Your task to perform on an android device: Open wifi settings Image 0: 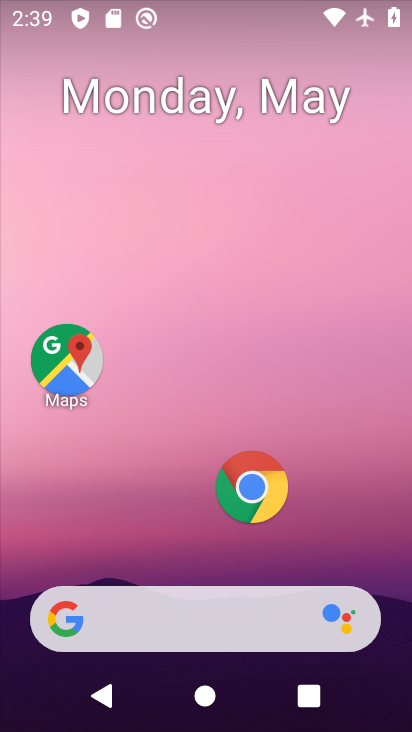
Step 0: drag from (181, 436) to (228, 0)
Your task to perform on an android device: Open wifi settings Image 1: 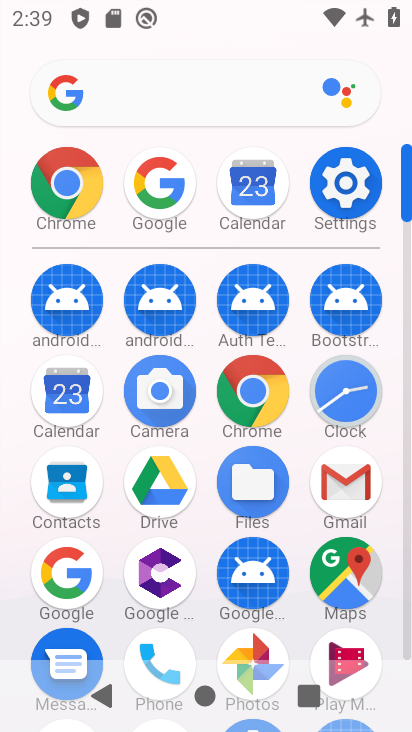
Step 1: click (346, 195)
Your task to perform on an android device: Open wifi settings Image 2: 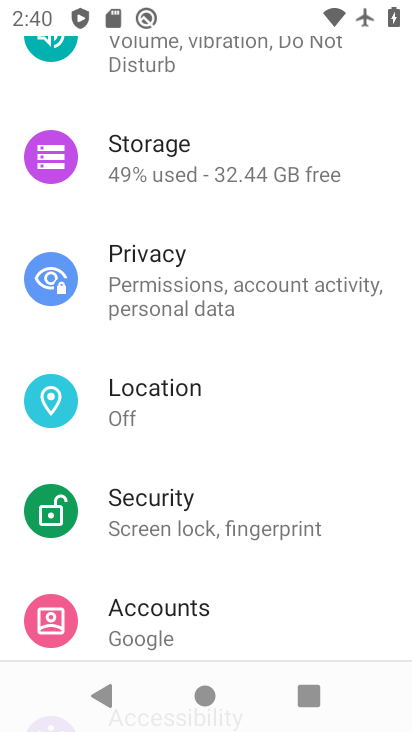
Step 2: drag from (185, 183) to (221, 519)
Your task to perform on an android device: Open wifi settings Image 3: 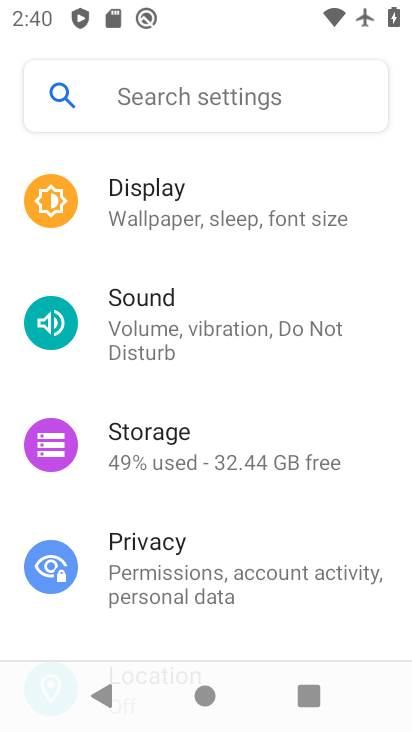
Step 3: drag from (208, 238) to (178, 619)
Your task to perform on an android device: Open wifi settings Image 4: 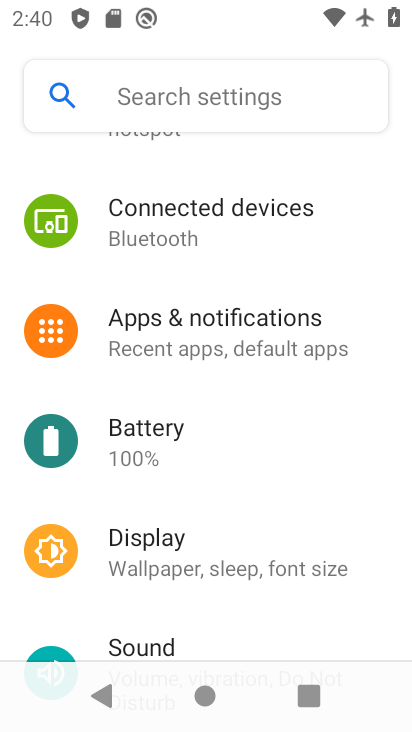
Step 4: drag from (211, 230) to (196, 617)
Your task to perform on an android device: Open wifi settings Image 5: 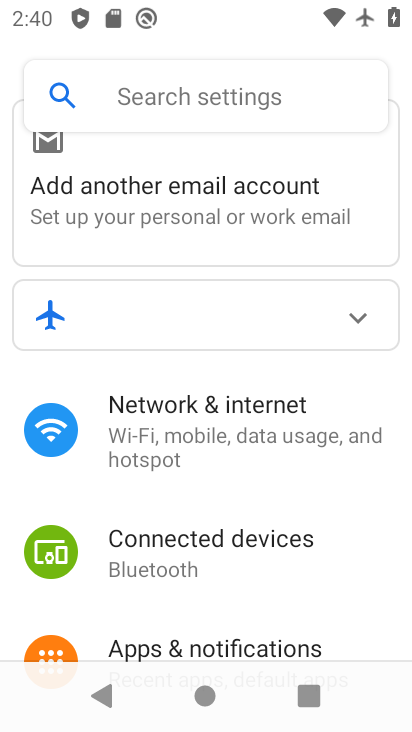
Step 5: click (155, 427)
Your task to perform on an android device: Open wifi settings Image 6: 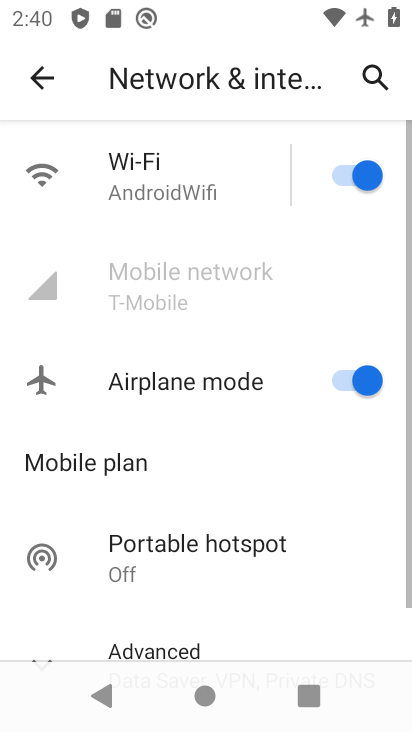
Step 6: click (110, 159)
Your task to perform on an android device: Open wifi settings Image 7: 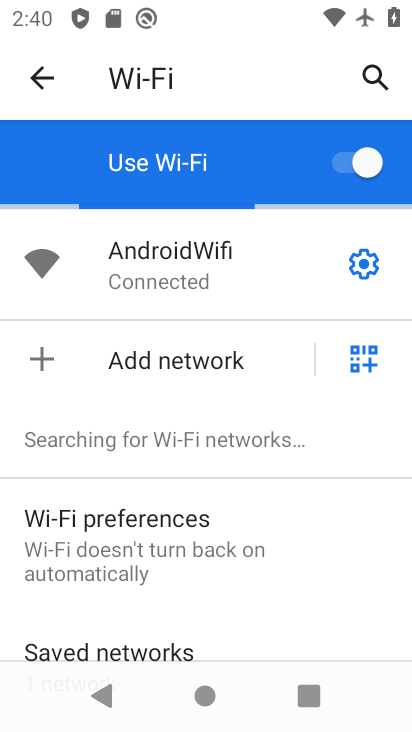
Step 7: task complete